Your task to perform on an android device: set the timer Image 0: 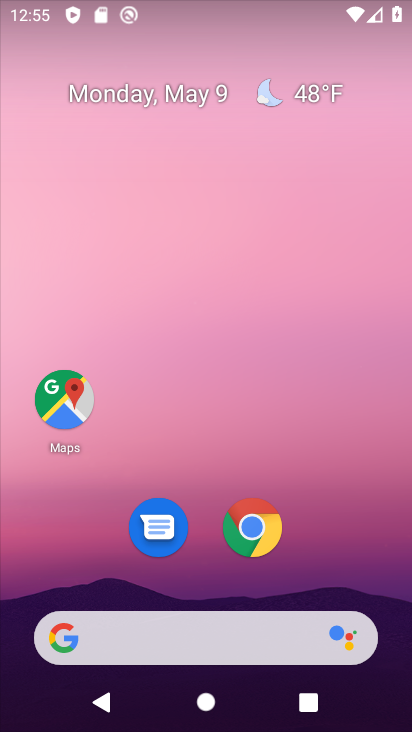
Step 0: drag from (197, 571) to (273, 149)
Your task to perform on an android device: set the timer Image 1: 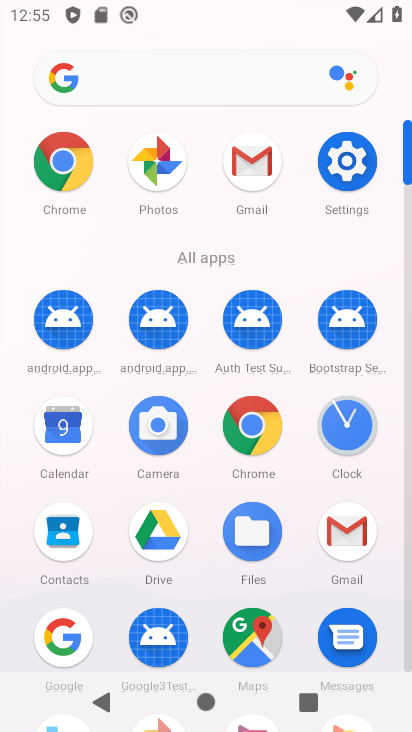
Step 1: click (346, 418)
Your task to perform on an android device: set the timer Image 2: 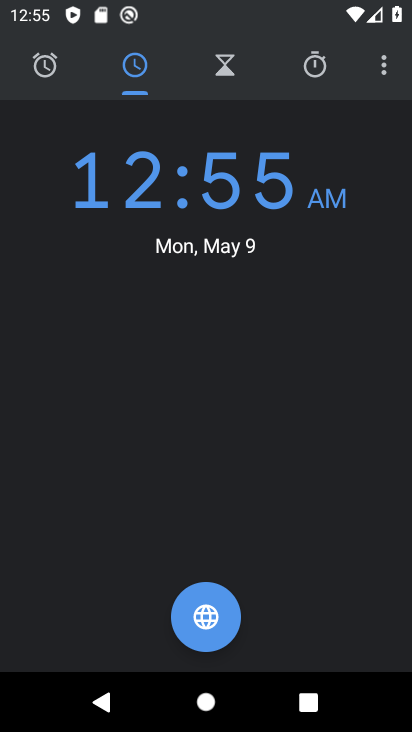
Step 2: click (231, 56)
Your task to perform on an android device: set the timer Image 3: 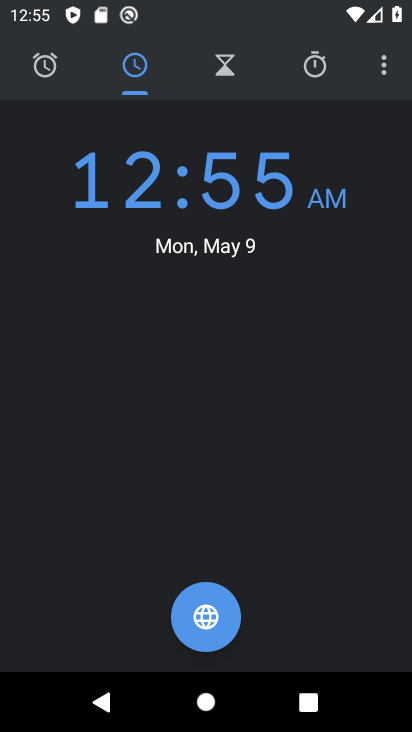
Step 3: click (240, 70)
Your task to perform on an android device: set the timer Image 4: 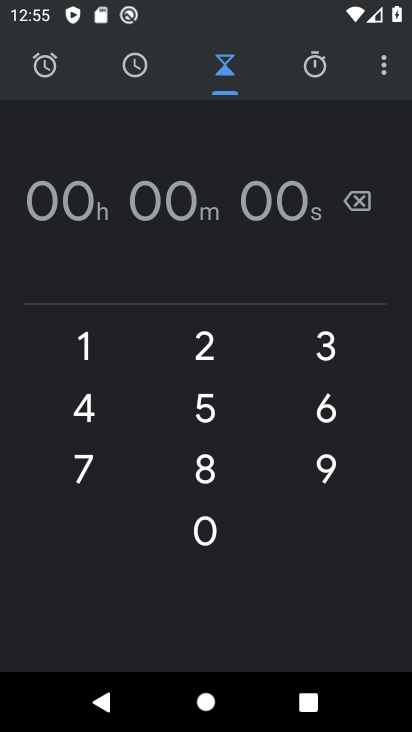
Step 4: click (192, 468)
Your task to perform on an android device: set the timer Image 5: 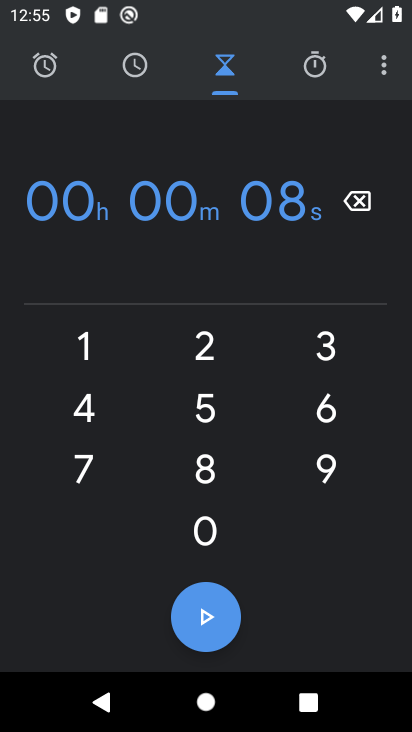
Step 5: click (223, 410)
Your task to perform on an android device: set the timer Image 6: 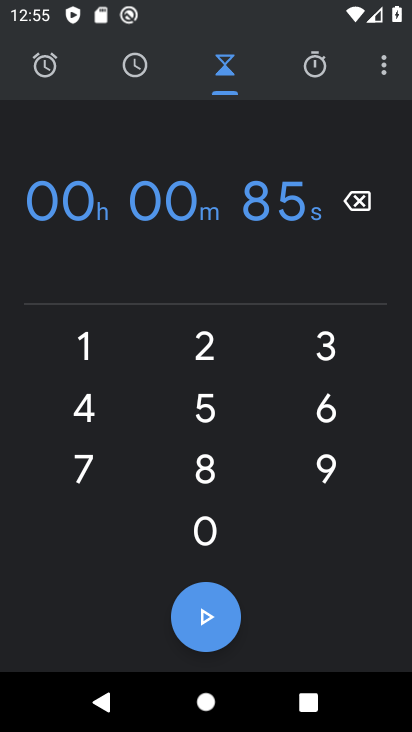
Step 6: click (291, 467)
Your task to perform on an android device: set the timer Image 7: 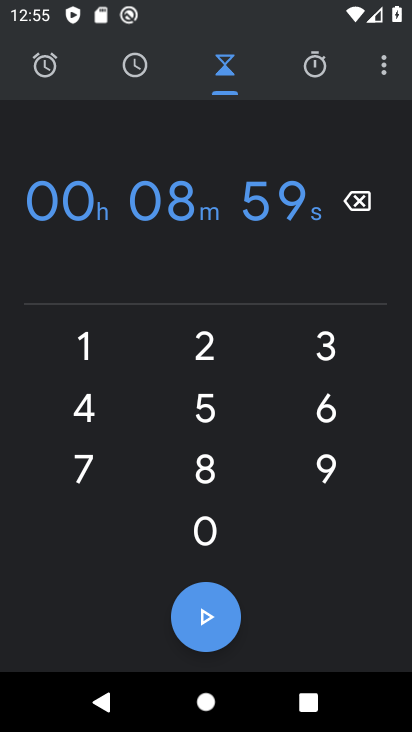
Step 7: click (296, 423)
Your task to perform on an android device: set the timer Image 8: 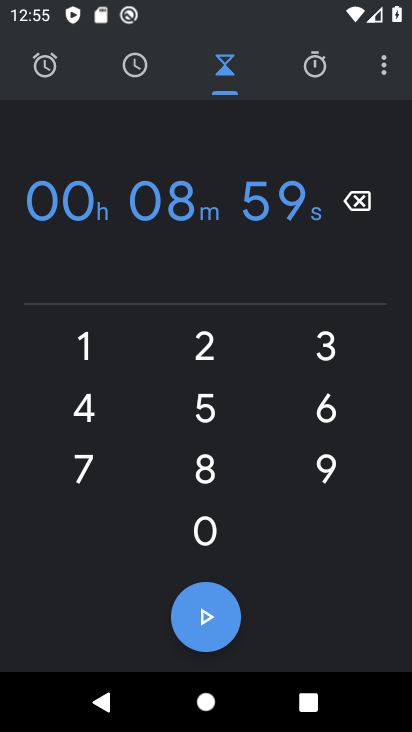
Step 8: click (178, 609)
Your task to perform on an android device: set the timer Image 9: 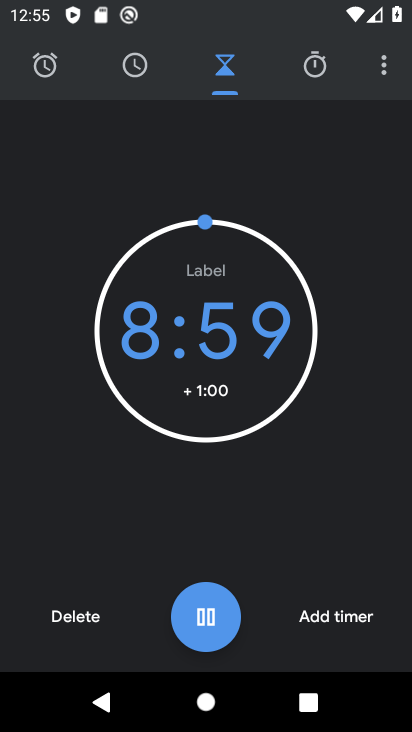
Step 9: task complete